Your task to perform on an android device: read, delete, or share a saved page in the chrome app Image 0: 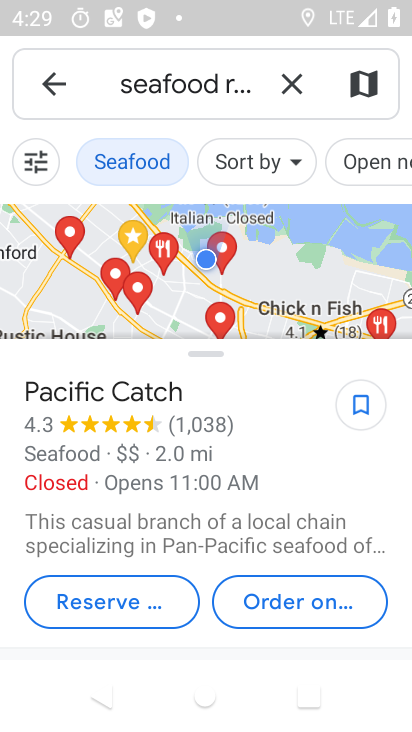
Step 0: press home button
Your task to perform on an android device: read, delete, or share a saved page in the chrome app Image 1: 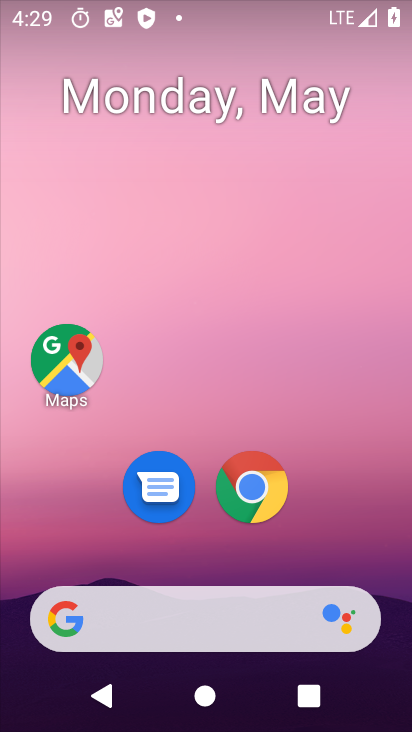
Step 1: click (256, 497)
Your task to perform on an android device: read, delete, or share a saved page in the chrome app Image 2: 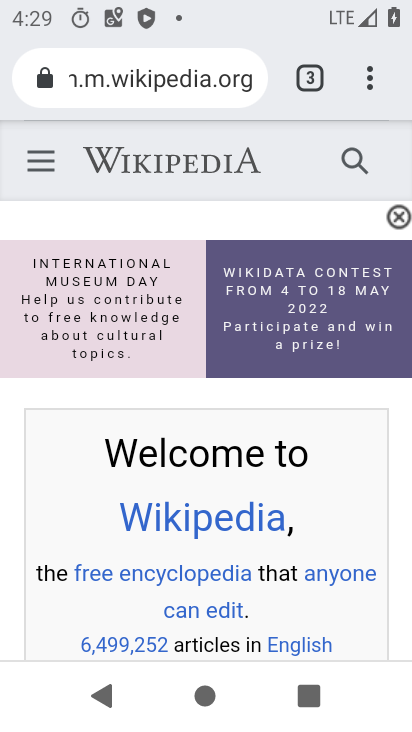
Step 2: click (372, 77)
Your task to perform on an android device: read, delete, or share a saved page in the chrome app Image 3: 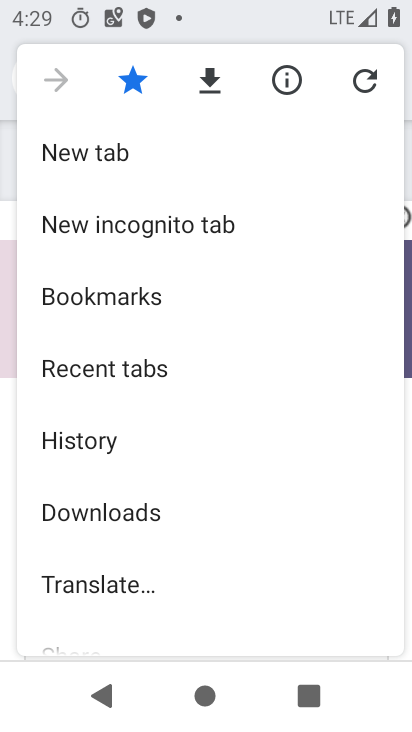
Step 3: click (117, 513)
Your task to perform on an android device: read, delete, or share a saved page in the chrome app Image 4: 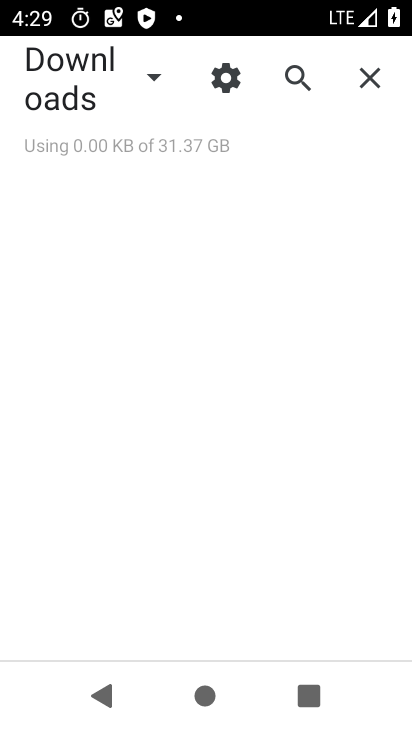
Step 4: click (165, 79)
Your task to perform on an android device: read, delete, or share a saved page in the chrome app Image 5: 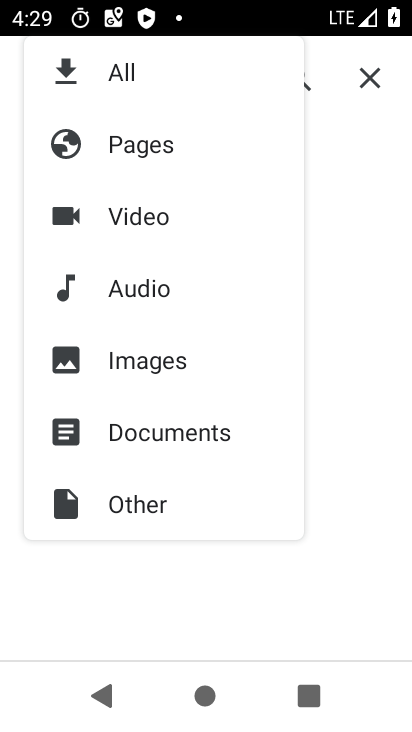
Step 5: click (141, 152)
Your task to perform on an android device: read, delete, or share a saved page in the chrome app Image 6: 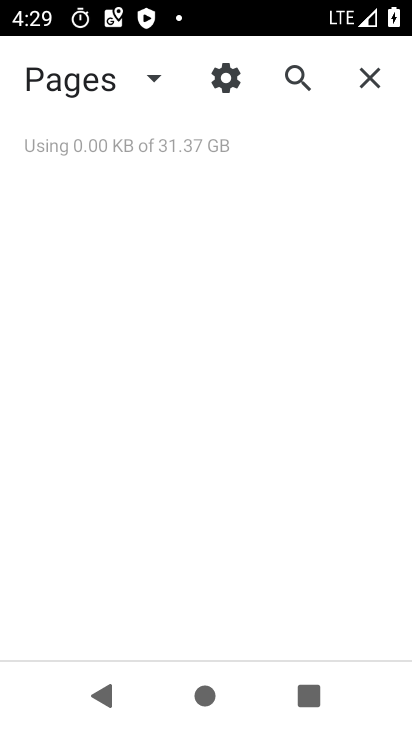
Step 6: task complete